Your task to perform on an android device: see sites visited before in the chrome app Image 0: 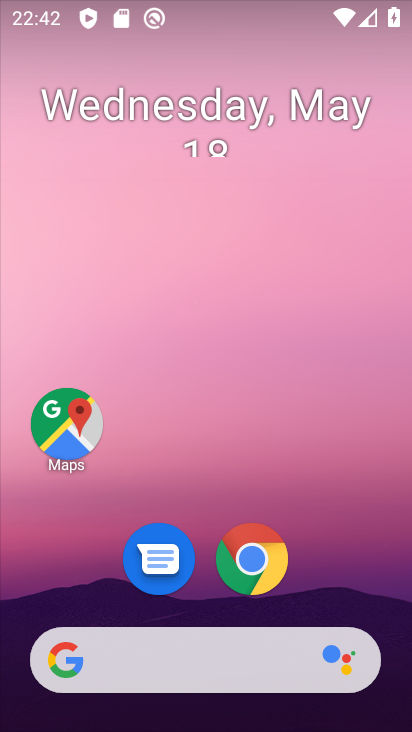
Step 0: drag from (303, 585) to (271, 163)
Your task to perform on an android device: see sites visited before in the chrome app Image 1: 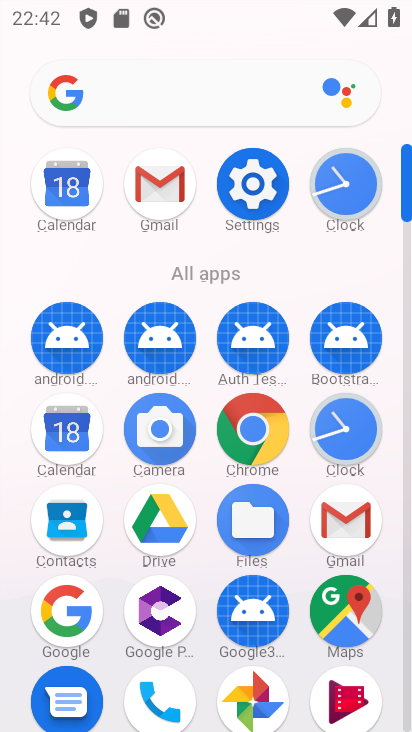
Step 1: click (271, 449)
Your task to perform on an android device: see sites visited before in the chrome app Image 2: 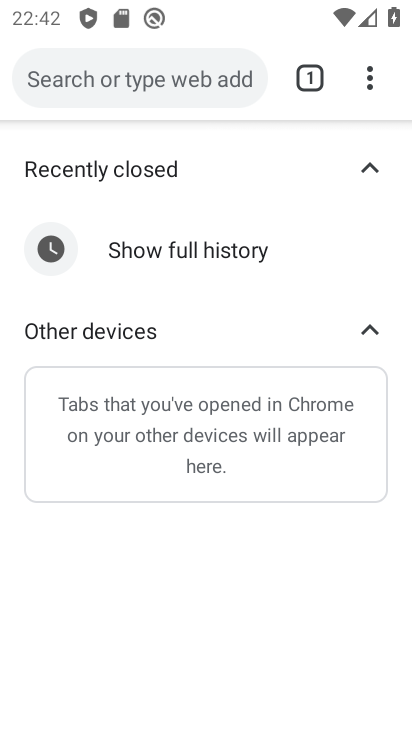
Step 2: click (375, 89)
Your task to perform on an android device: see sites visited before in the chrome app Image 3: 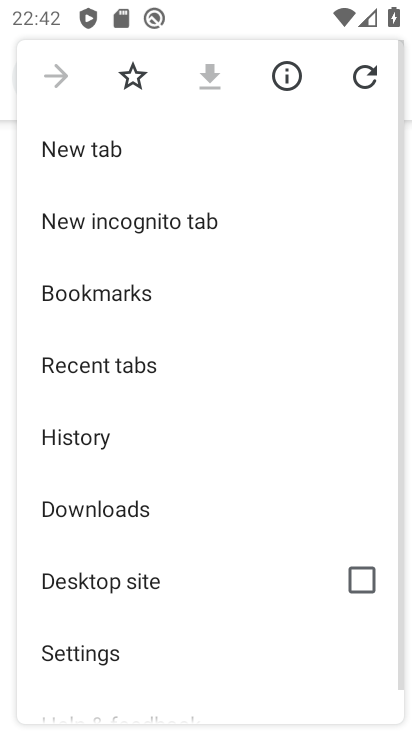
Step 3: click (96, 428)
Your task to perform on an android device: see sites visited before in the chrome app Image 4: 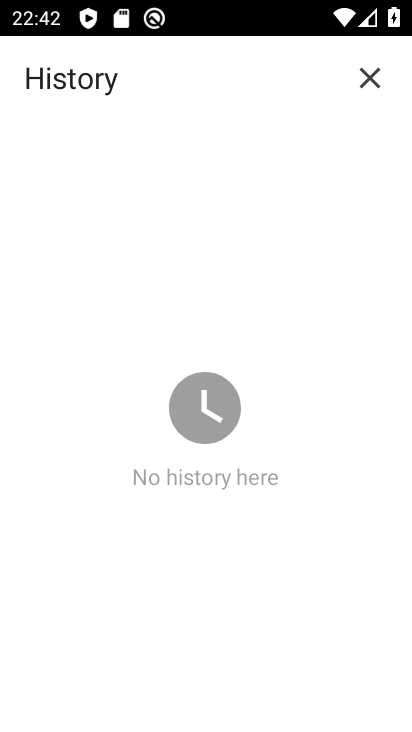
Step 4: task complete